Your task to perform on an android device: Set the phone to "Do not disturb". Image 0: 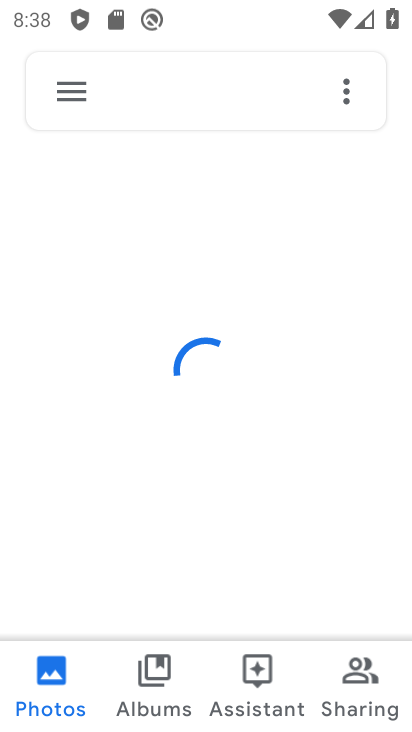
Step 0: press home button
Your task to perform on an android device: Set the phone to "Do not disturb". Image 1: 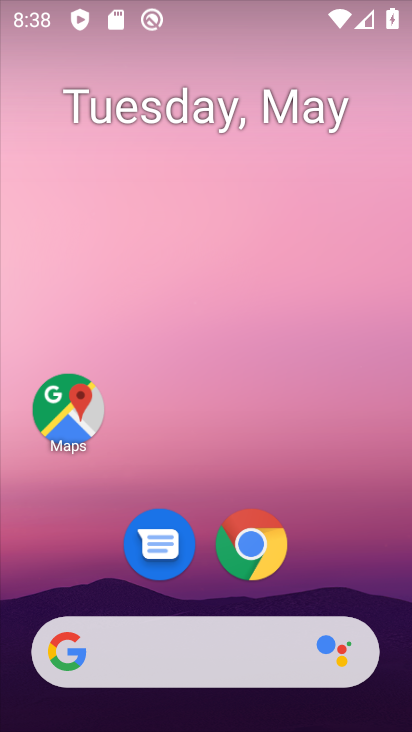
Step 1: drag from (367, 561) to (319, 239)
Your task to perform on an android device: Set the phone to "Do not disturb". Image 2: 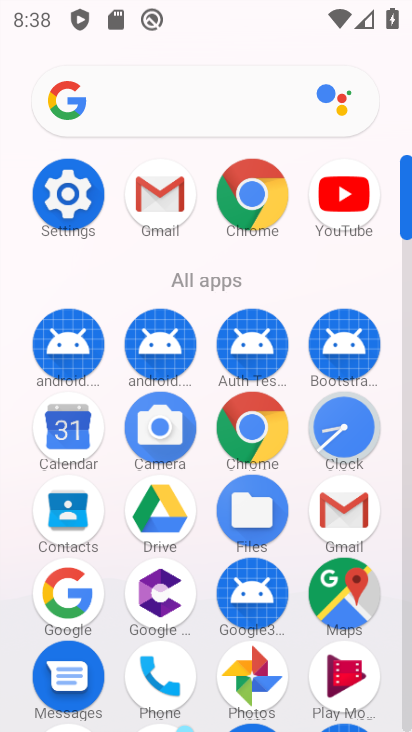
Step 2: click (54, 210)
Your task to perform on an android device: Set the phone to "Do not disturb". Image 3: 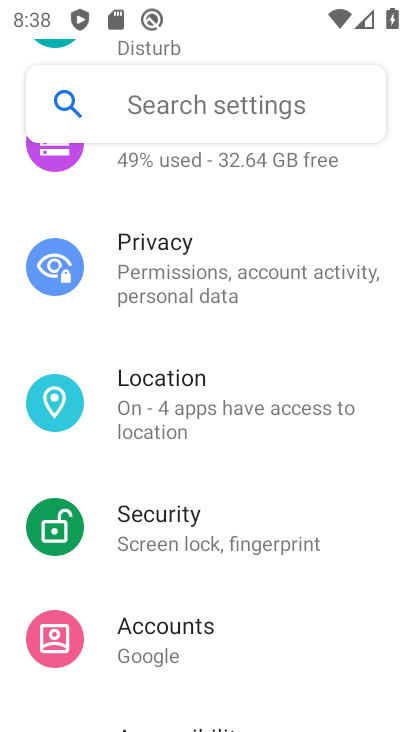
Step 3: drag from (233, 252) to (227, 593)
Your task to perform on an android device: Set the phone to "Do not disturb". Image 4: 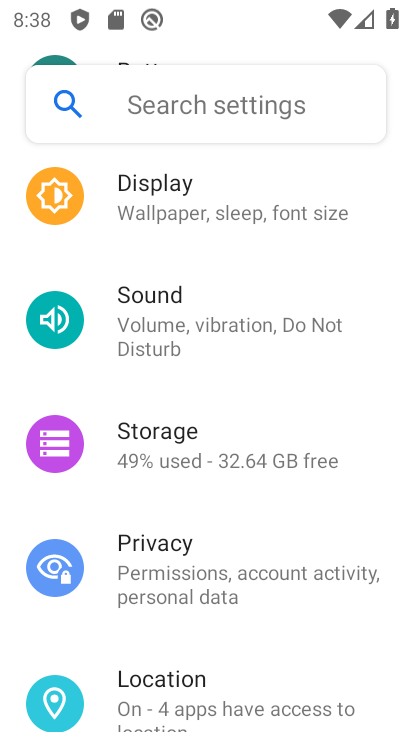
Step 4: click (229, 317)
Your task to perform on an android device: Set the phone to "Do not disturb". Image 5: 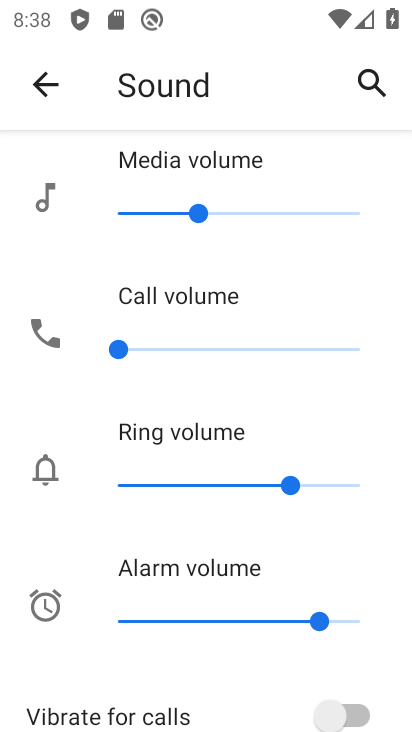
Step 5: drag from (182, 663) to (193, 303)
Your task to perform on an android device: Set the phone to "Do not disturb". Image 6: 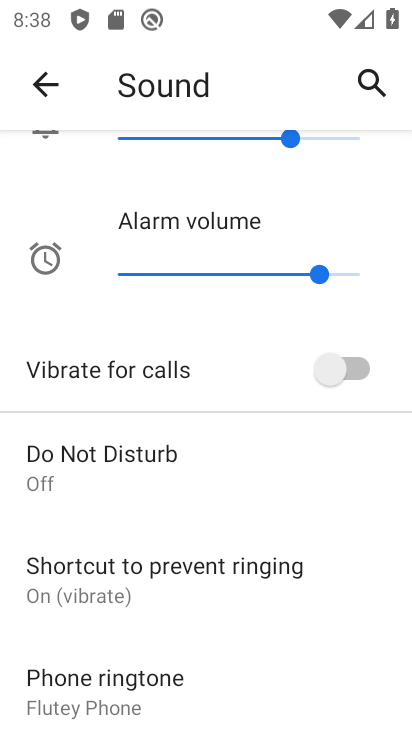
Step 6: click (146, 471)
Your task to perform on an android device: Set the phone to "Do not disturb". Image 7: 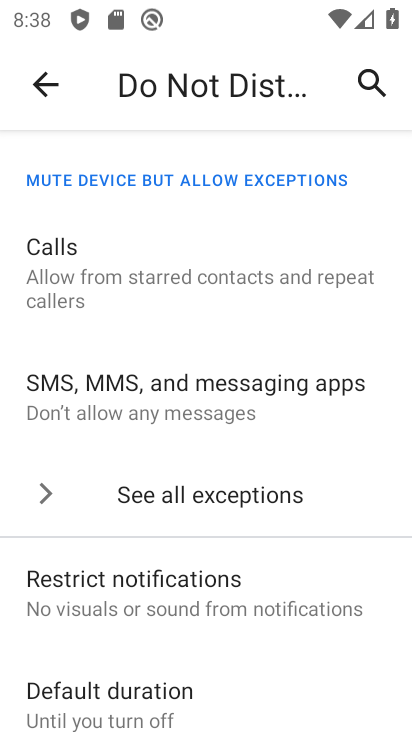
Step 7: task complete